Your task to perform on an android device: find which apps use the phone's location Image 0: 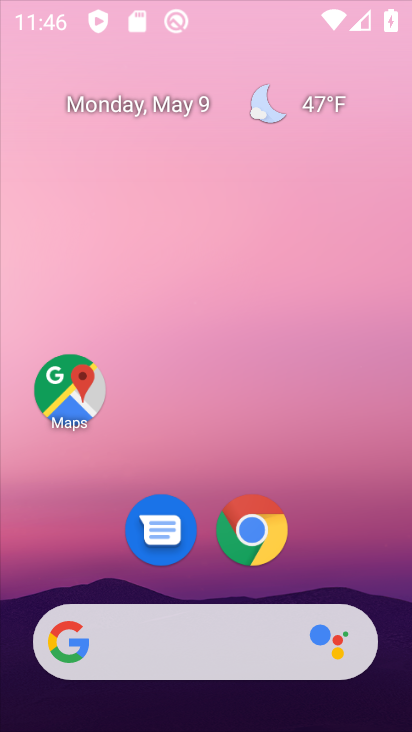
Step 0: drag from (364, 519) to (360, 173)
Your task to perform on an android device: find which apps use the phone's location Image 1: 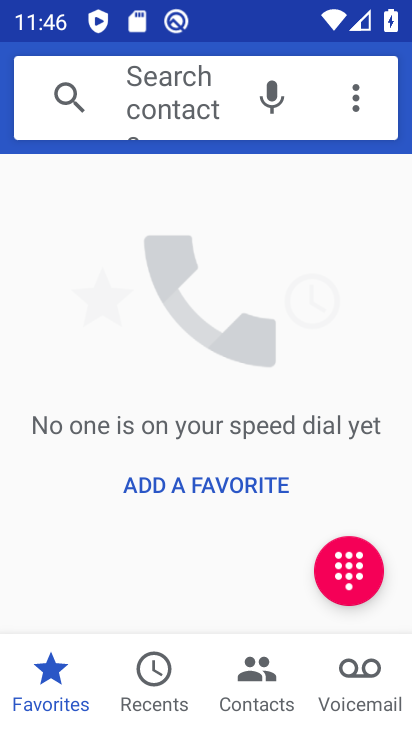
Step 1: press home button
Your task to perform on an android device: find which apps use the phone's location Image 2: 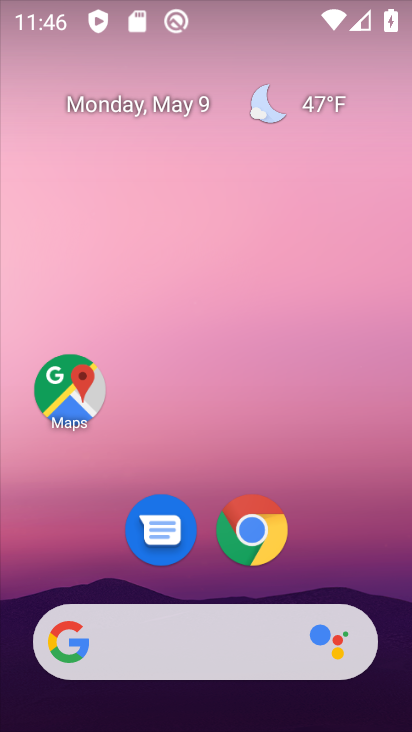
Step 2: drag from (361, 556) to (343, 143)
Your task to perform on an android device: find which apps use the phone's location Image 3: 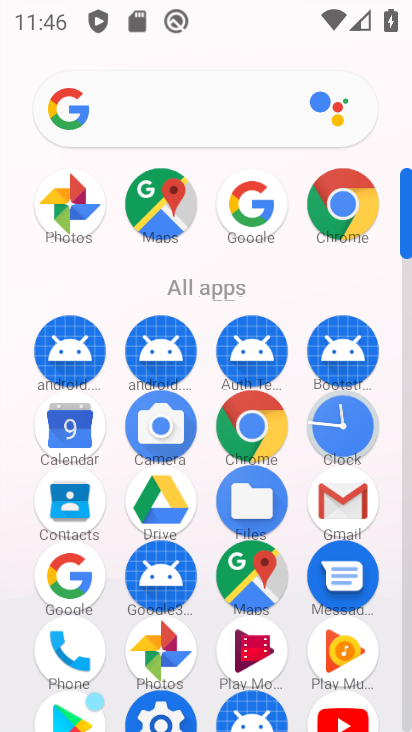
Step 3: click (172, 702)
Your task to perform on an android device: find which apps use the phone's location Image 4: 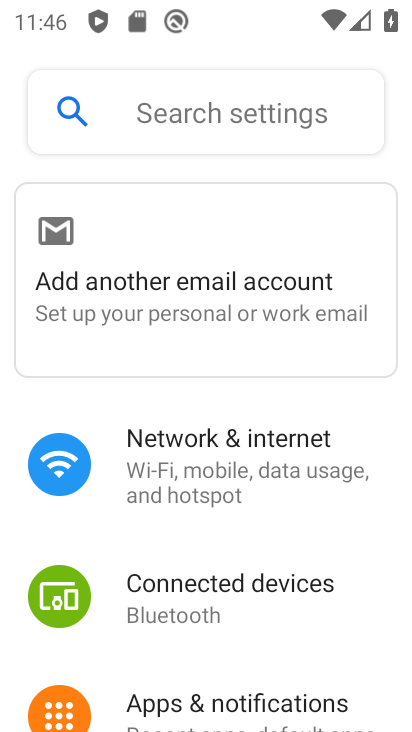
Step 4: drag from (250, 604) to (288, 317)
Your task to perform on an android device: find which apps use the phone's location Image 5: 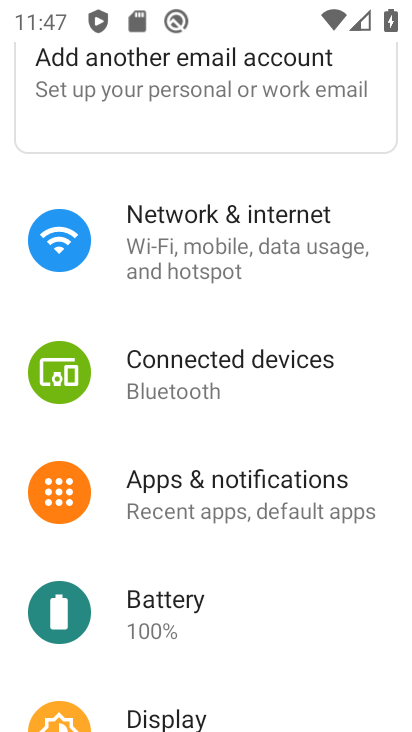
Step 5: drag from (266, 620) to (298, 295)
Your task to perform on an android device: find which apps use the phone's location Image 6: 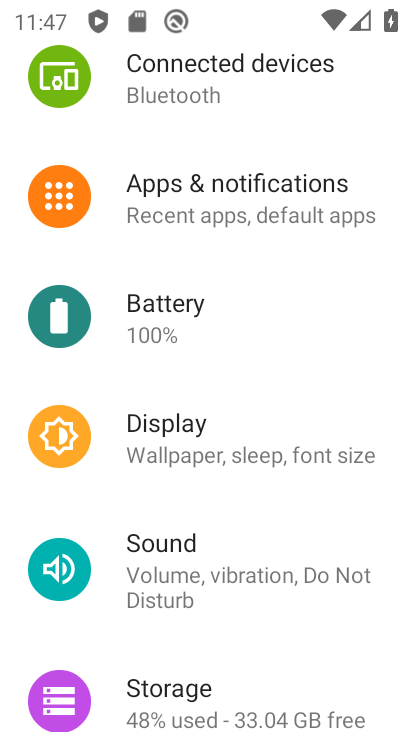
Step 6: drag from (300, 598) to (311, 249)
Your task to perform on an android device: find which apps use the phone's location Image 7: 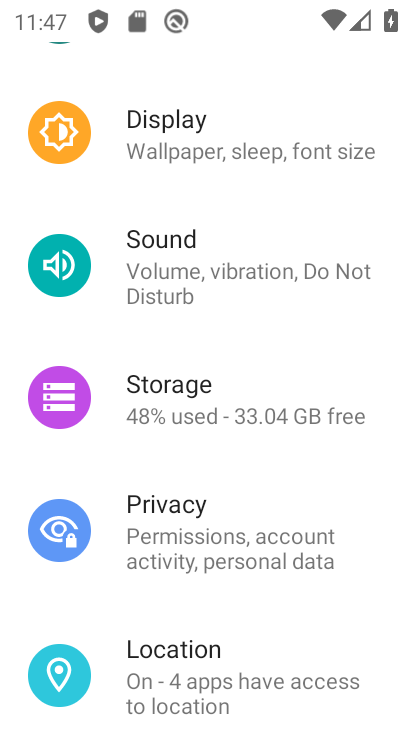
Step 7: click (279, 658)
Your task to perform on an android device: find which apps use the phone's location Image 8: 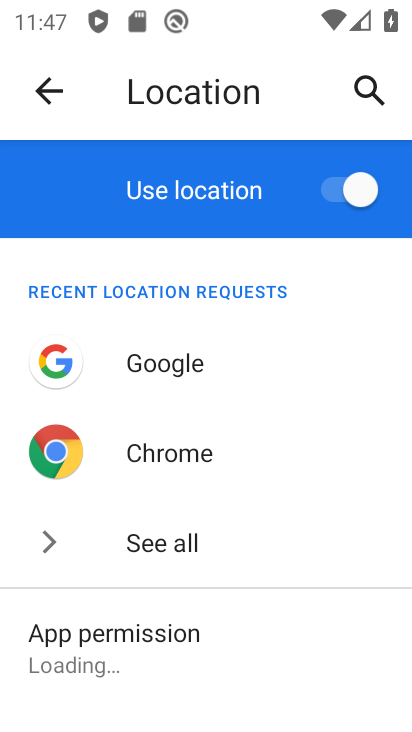
Step 8: task complete